Your task to perform on an android device: turn pop-ups off in chrome Image 0: 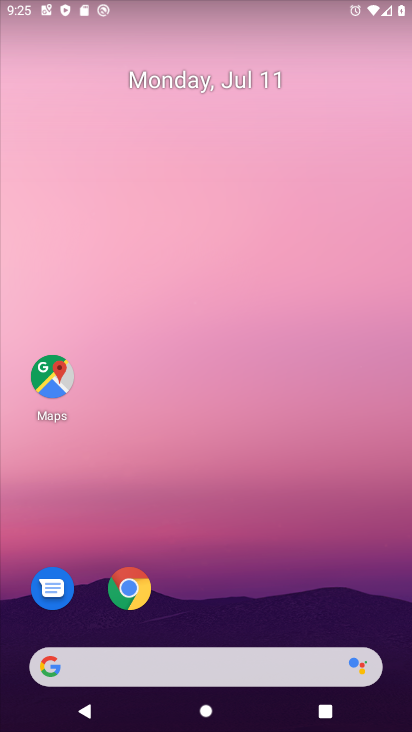
Step 0: click (137, 601)
Your task to perform on an android device: turn pop-ups off in chrome Image 1: 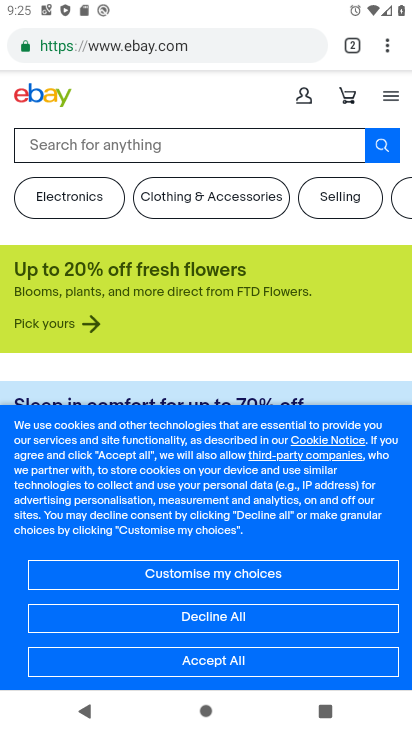
Step 1: drag from (387, 50) to (241, 548)
Your task to perform on an android device: turn pop-ups off in chrome Image 2: 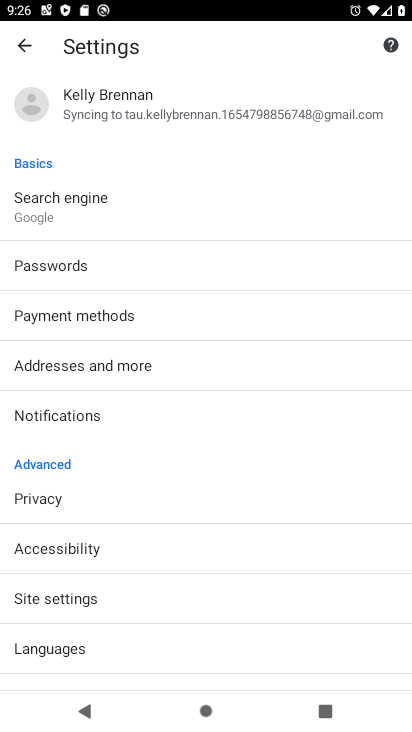
Step 2: click (86, 601)
Your task to perform on an android device: turn pop-ups off in chrome Image 3: 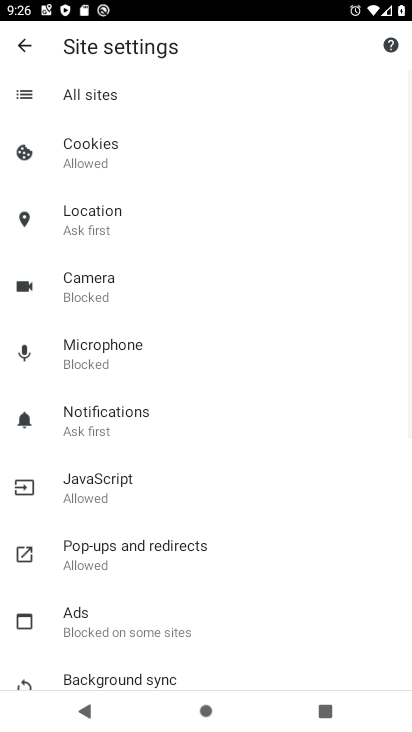
Step 3: click (110, 551)
Your task to perform on an android device: turn pop-ups off in chrome Image 4: 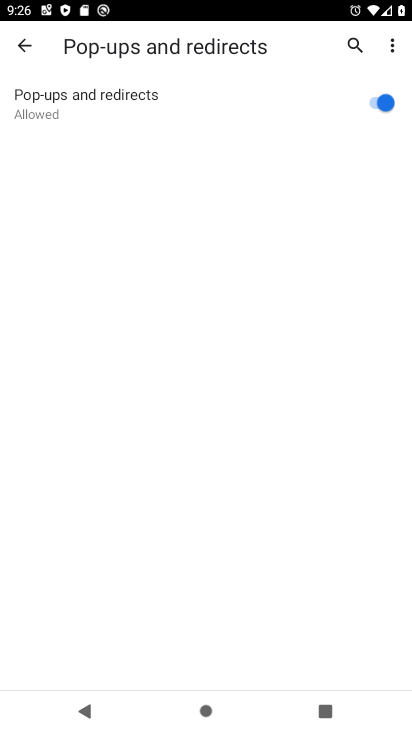
Step 4: click (390, 103)
Your task to perform on an android device: turn pop-ups off in chrome Image 5: 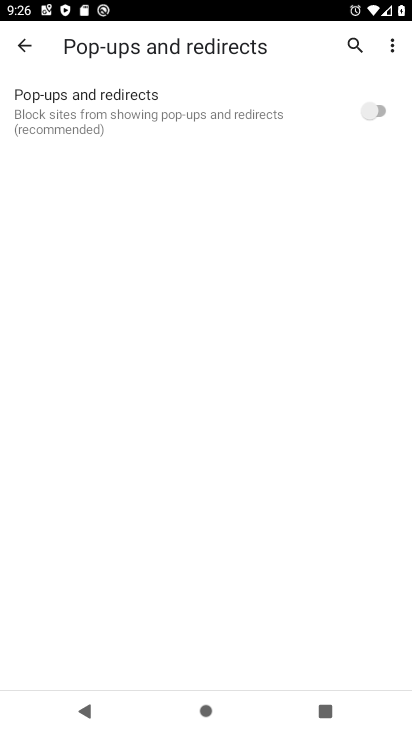
Step 5: task complete